Your task to perform on an android device: Go to Android settings Image 0: 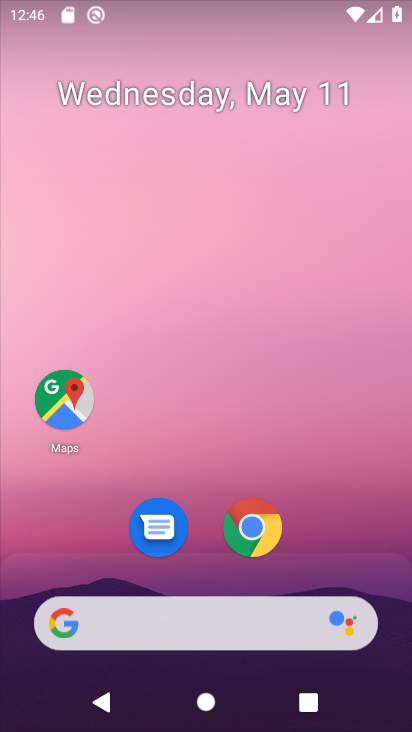
Step 0: drag from (169, 705) to (333, 7)
Your task to perform on an android device: Go to Android settings Image 1: 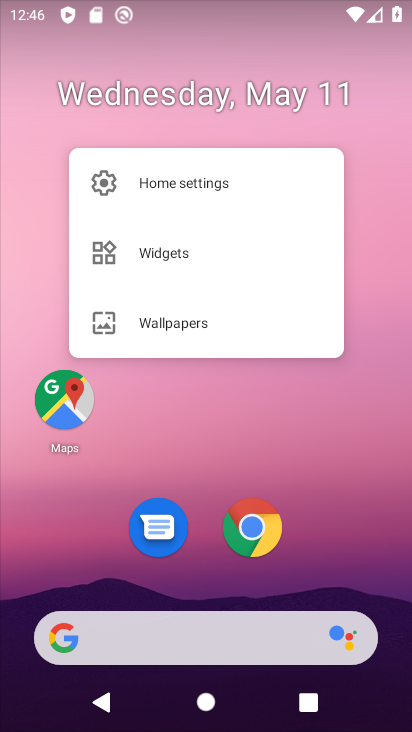
Step 1: click (326, 450)
Your task to perform on an android device: Go to Android settings Image 2: 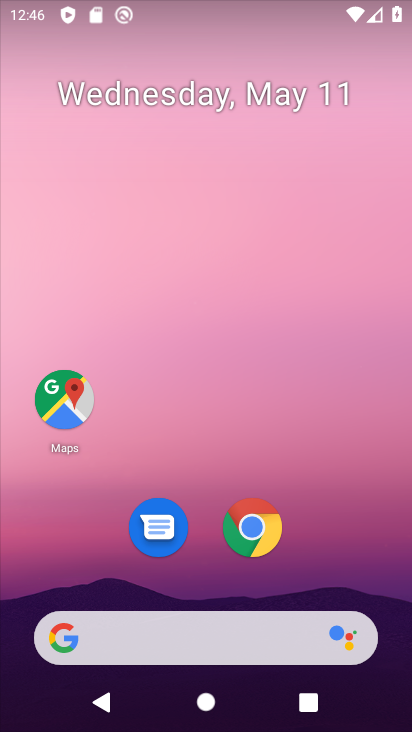
Step 2: drag from (265, 689) to (354, 39)
Your task to perform on an android device: Go to Android settings Image 3: 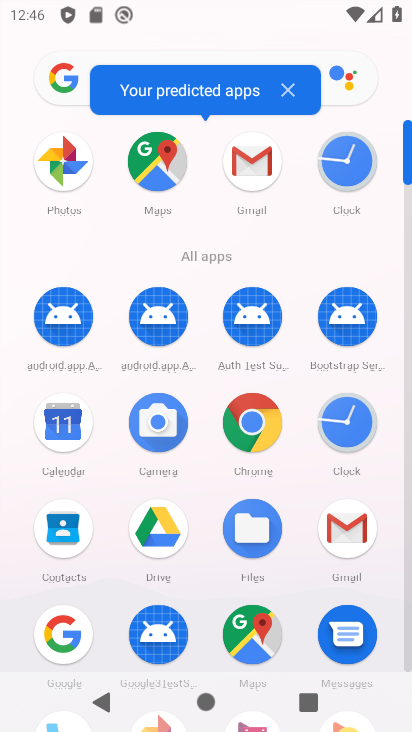
Step 3: drag from (196, 593) to (275, 208)
Your task to perform on an android device: Go to Android settings Image 4: 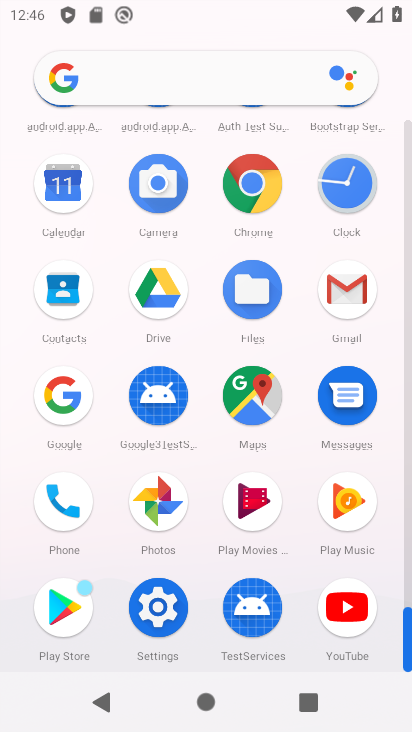
Step 4: click (148, 611)
Your task to perform on an android device: Go to Android settings Image 5: 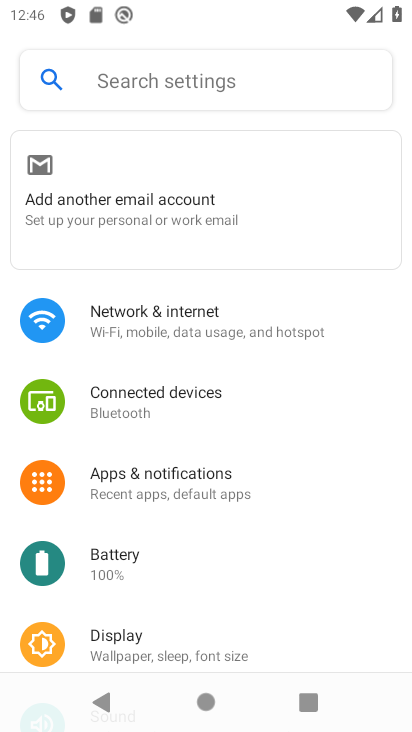
Step 5: drag from (188, 563) to (328, 152)
Your task to perform on an android device: Go to Android settings Image 6: 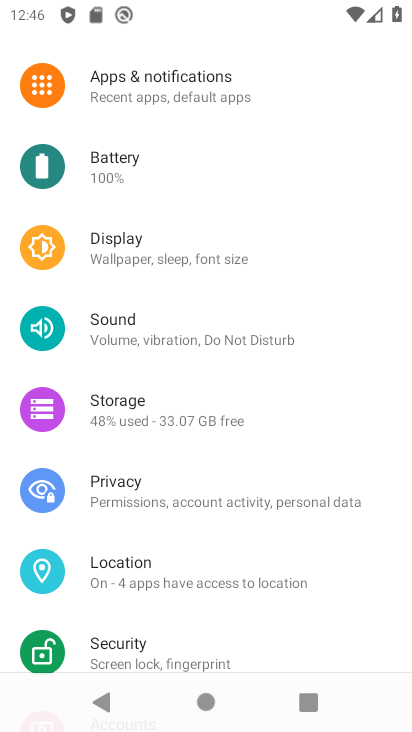
Step 6: drag from (190, 514) to (292, 106)
Your task to perform on an android device: Go to Android settings Image 7: 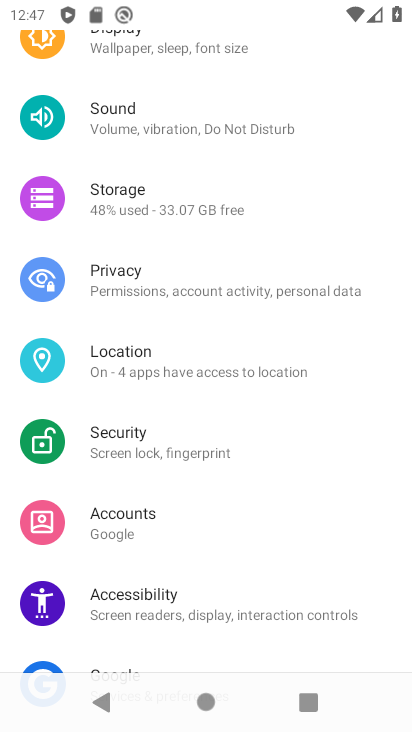
Step 7: drag from (163, 629) to (295, 149)
Your task to perform on an android device: Go to Android settings Image 8: 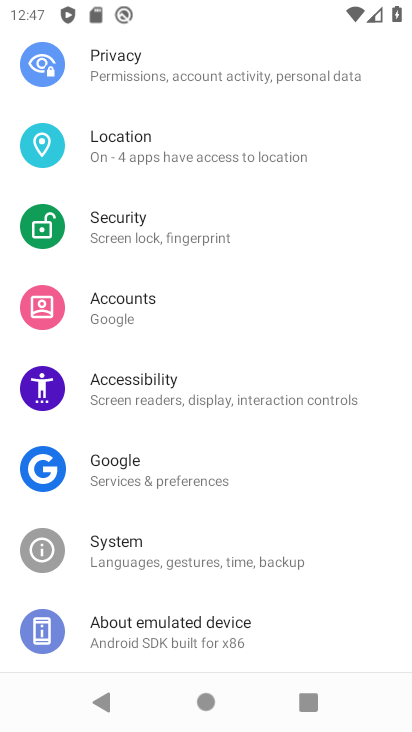
Step 8: drag from (175, 565) to (241, 46)
Your task to perform on an android device: Go to Android settings Image 9: 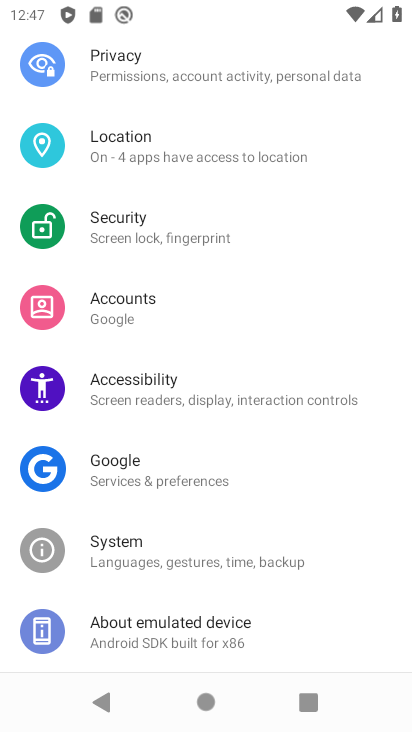
Step 9: drag from (207, 234) to (147, 730)
Your task to perform on an android device: Go to Android settings Image 10: 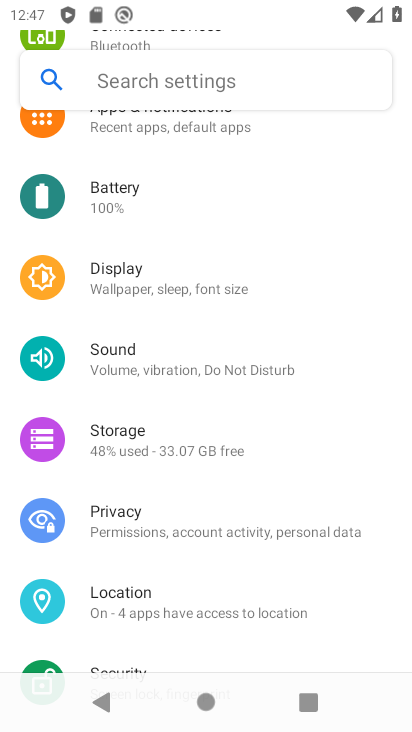
Step 10: drag from (249, 268) to (197, 649)
Your task to perform on an android device: Go to Android settings Image 11: 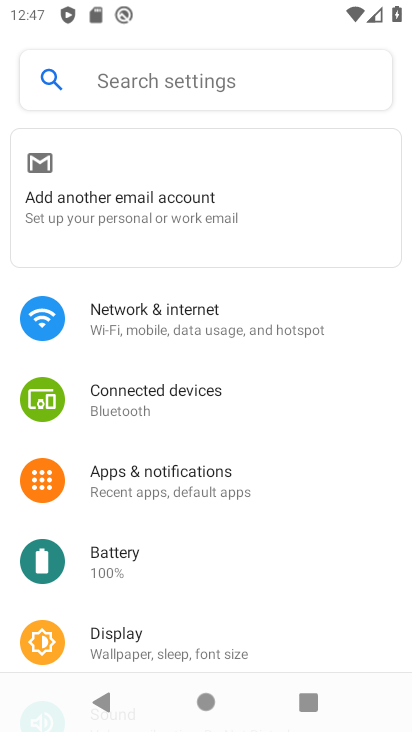
Step 11: click (208, 329)
Your task to perform on an android device: Go to Android settings Image 12: 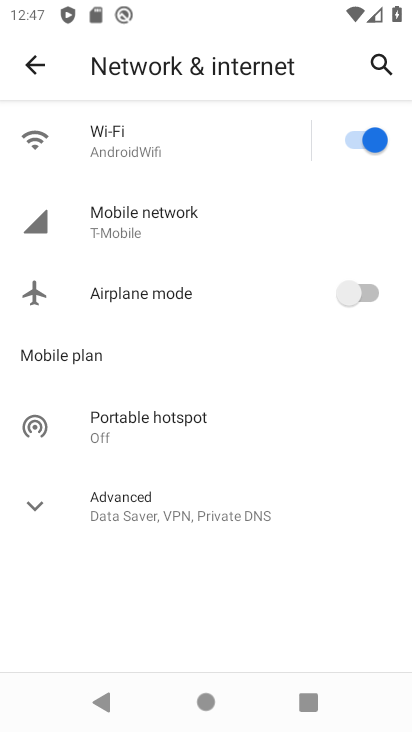
Step 12: click (40, 56)
Your task to perform on an android device: Go to Android settings Image 13: 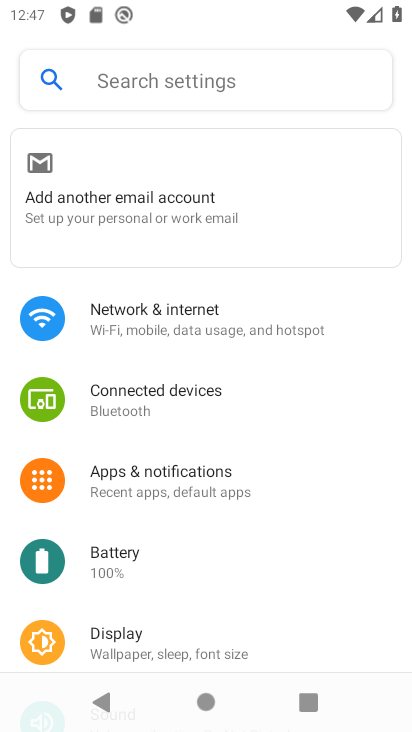
Step 13: task complete